Your task to perform on an android device: check data usage Image 0: 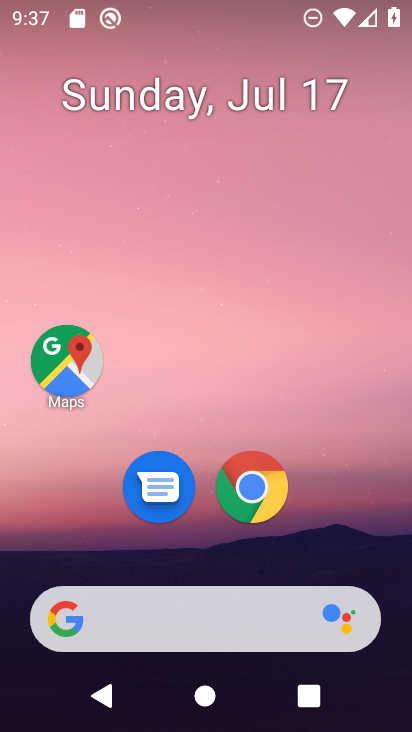
Step 0: press home button
Your task to perform on an android device: check data usage Image 1: 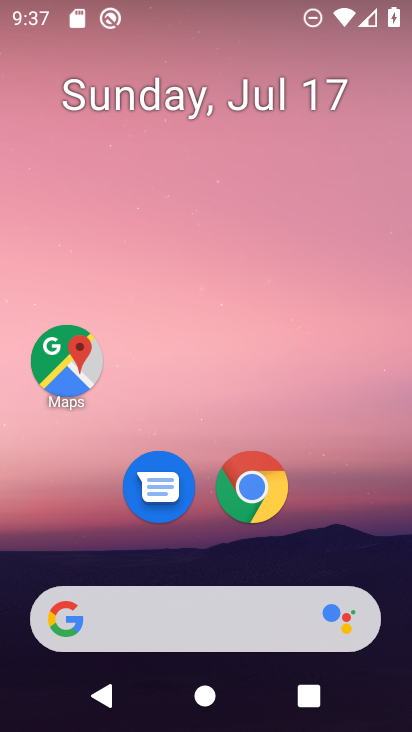
Step 1: drag from (283, 550) to (317, 0)
Your task to perform on an android device: check data usage Image 2: 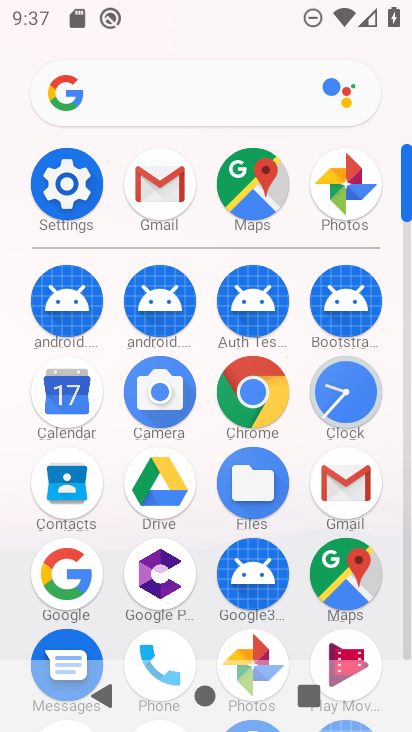
Step 2: click (54, 173)
Your task to perform on an android device: check data usage Image 3: 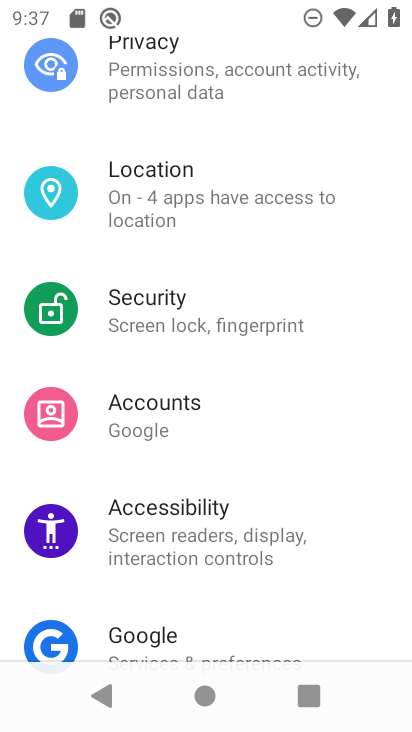
Step 3: drag from (309, 144) to (254, 503)
Your task to perform on an android device: check data usage Image 4: 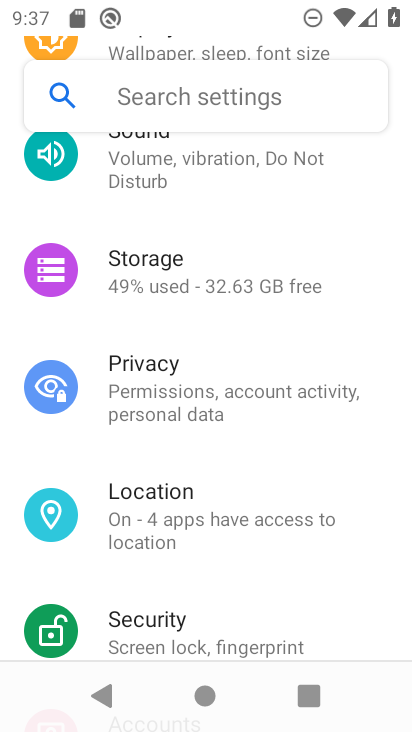
Step 4: drag from (174, 224) to (157, 483)
Your task to perform on an android device: check data usage Image 5: 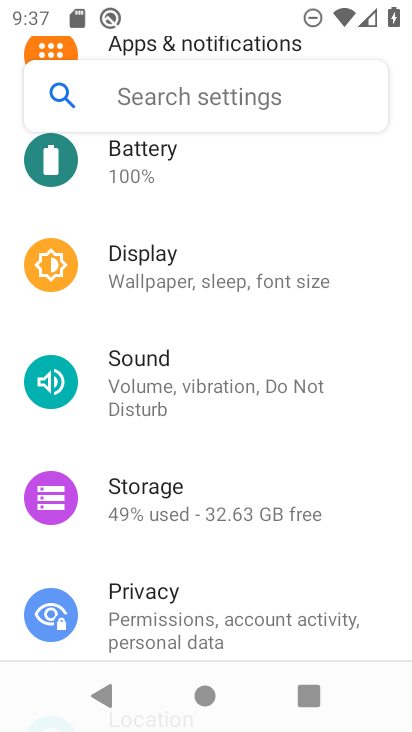
Step 5: drag from (235, 191) to (143, 657)
Your task to perform on an android device: check data usage Image 6: 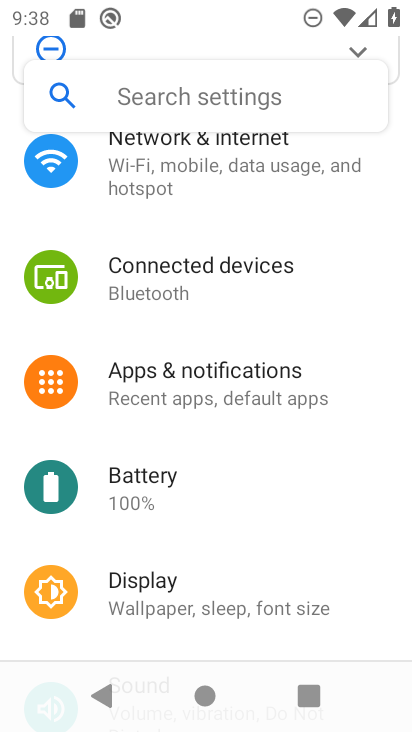
Step 6: drag from (375, 263) to (365, 667)
Your task to perform on an android device: check data usage Image 7: 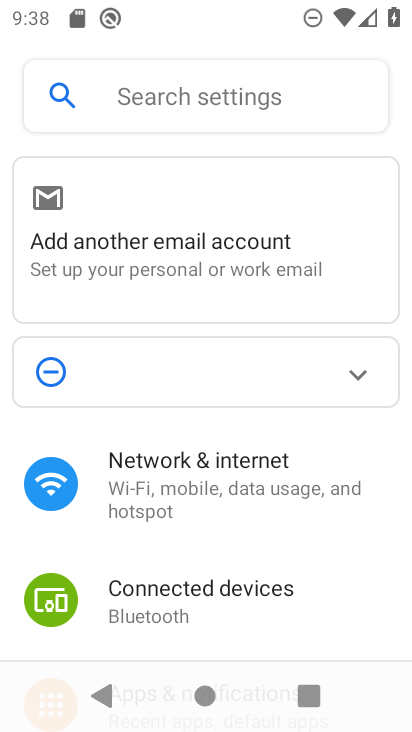
Step 7: click (247, 477)
Your task to perform on an android device: check data usage Image 8: 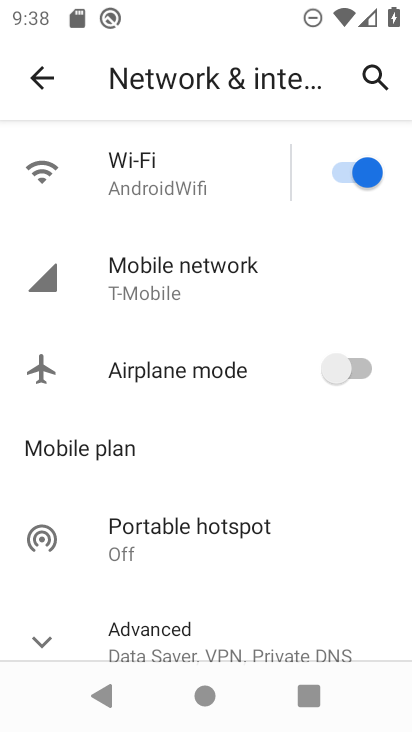
Step 8: click (190, 274)
Your task to perform on an android device: check data usage Image 9: 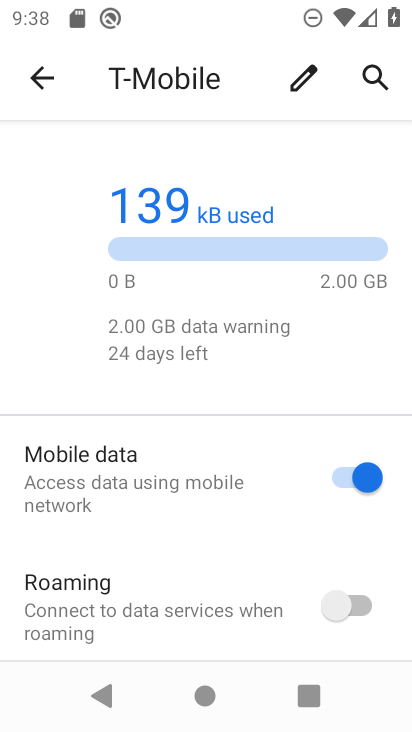
Step 9: drag from (214, 561) to (236, 138)
Your task to perform on an android device: check data usage Image 10: 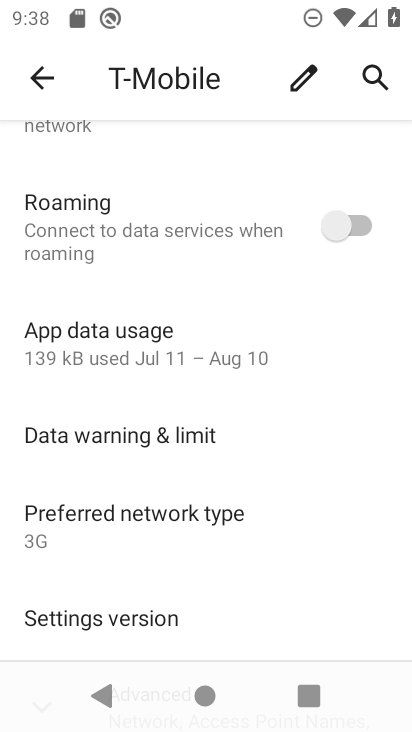
Step 10: click (90, 334)
Your task to perform on an android device: check data usage Image 11: 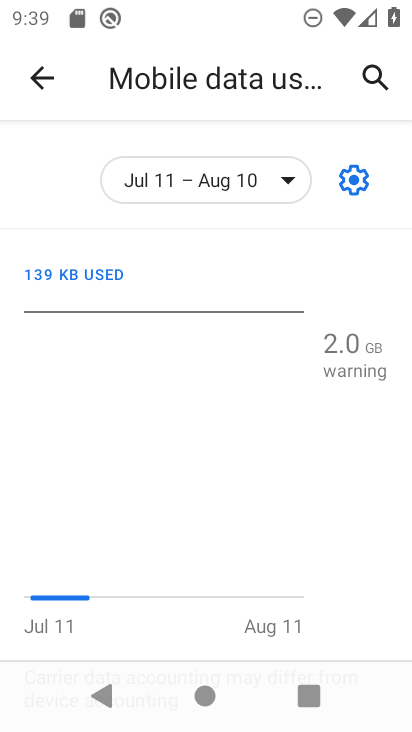
Step 11: task complete